Your task to perform on an android device: Open location settings Image 0: 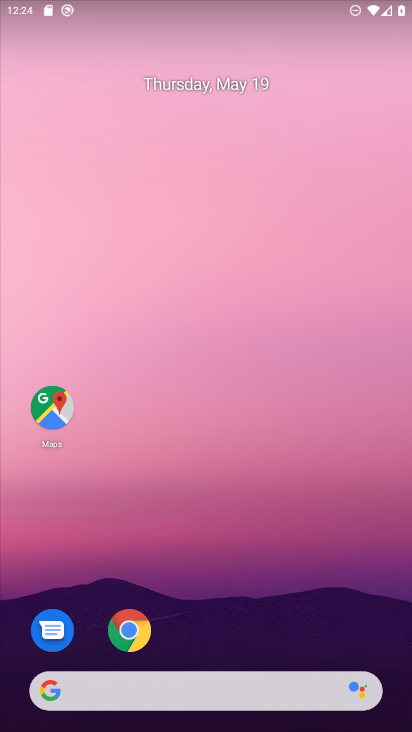
Step 0: drag from (192, 635) to (256, 301)
Your task to perform on an android device: Open location settings Image 1: 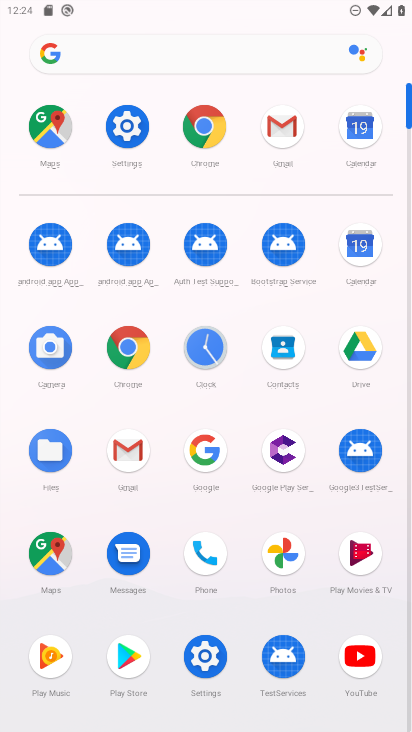
Step 1: click (132, 126)
Your task to perform on an android device: Open location settings Image 2: 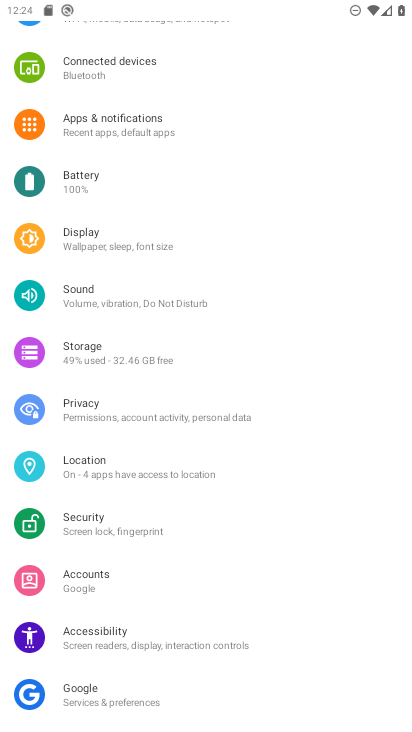
Step 2: drag from (160, 610) to (277, 289)
Your task to perform on an android device: Open location settings Image 3: 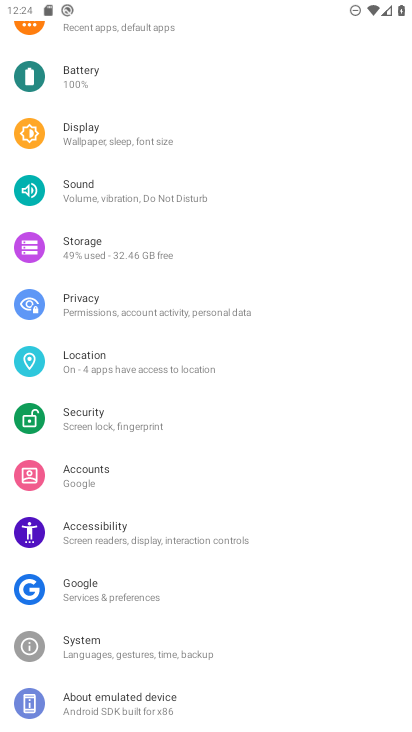
Step 3: click (131, 362)
Your task to perform on an android device: Open location settings Image 4: 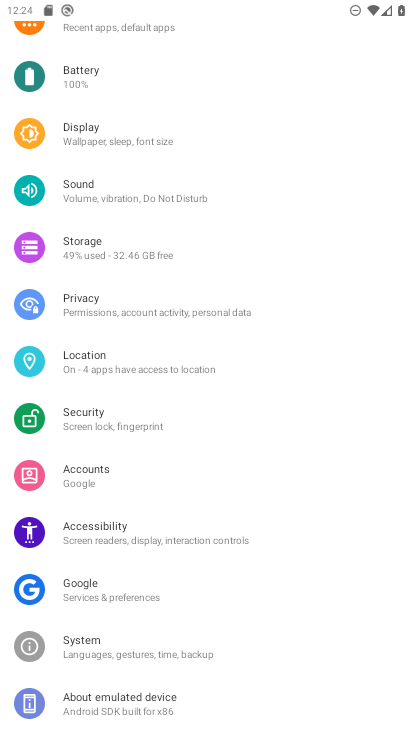
Step 4: click (130, 361)
Your task to perform on an android device: Open location settings Image 5: 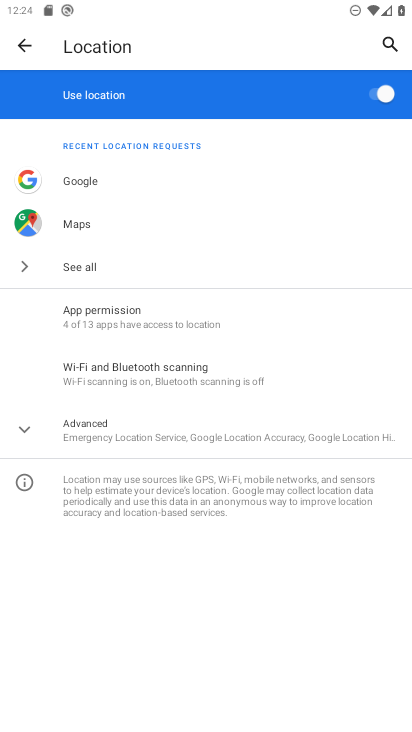
Step 5: task complete